Your task to perform on an android device: Open CNN.com Image 0: 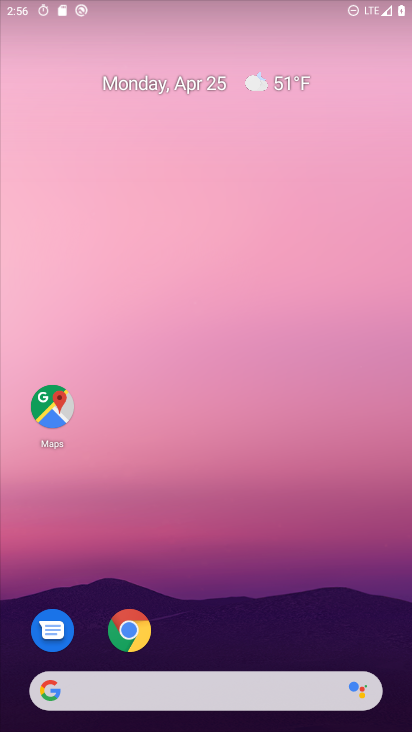
Step 0: drag from (218, 645) to (224, 113)
Your task to perform on an android device: Open CNN.com Image 1: 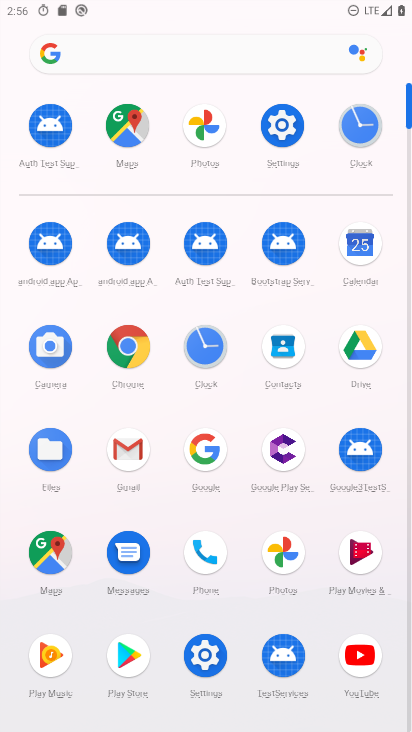
Step 1: click (169, 62)
Your task to perform on an android device: Open CNN.com Image 2: 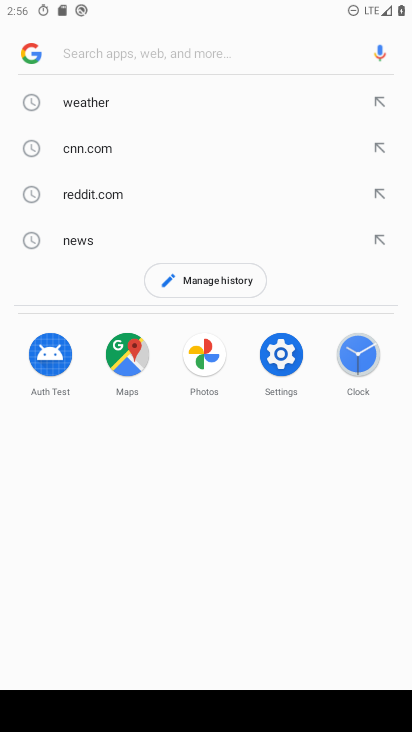
Step 2: click (129, 146)
Your task to perform on an android device: Open CNN.com Image 3: 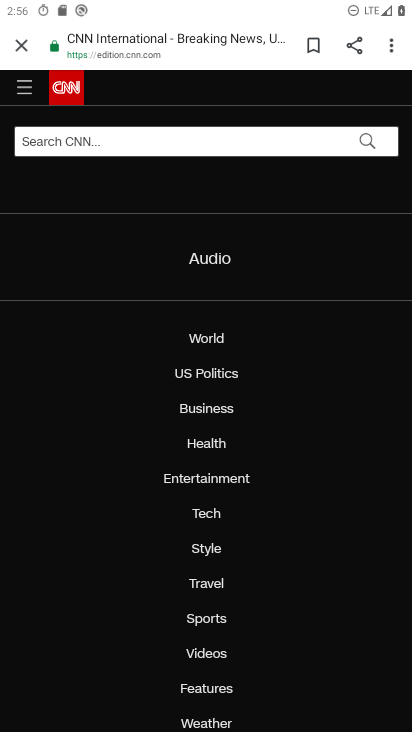
Step 3: task complete